Your task to perform on an android device: turn pop-ups on in chrome Image 0: 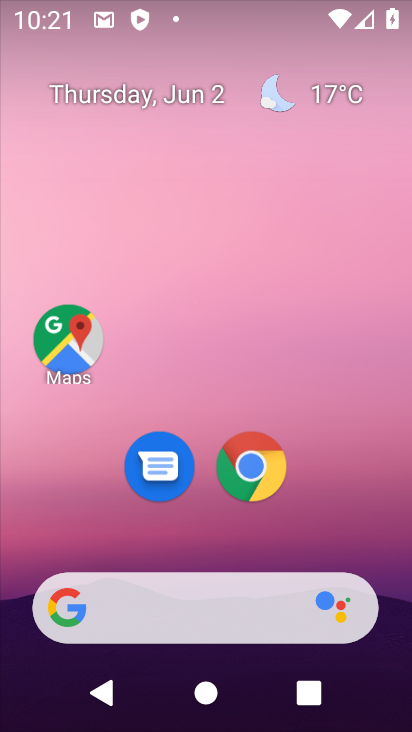
Step 0: click (243, 462)
Your task to perform on an android device: turn pop-ups on in chrome Image 1: 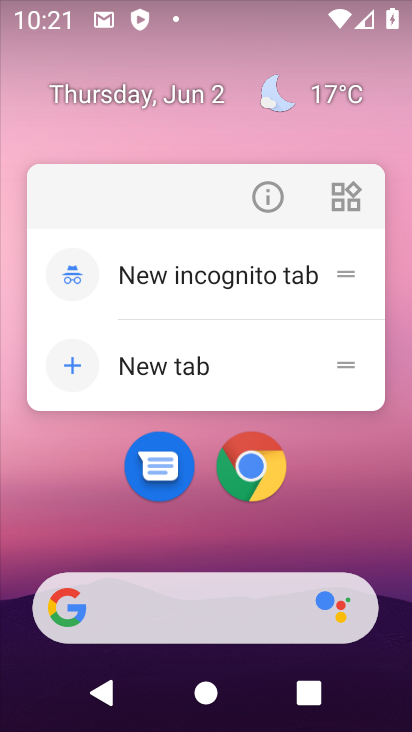
Step 1: click (249, 487)
Your task to perform on an android device: turn pop-ups on in chrome Image 2: 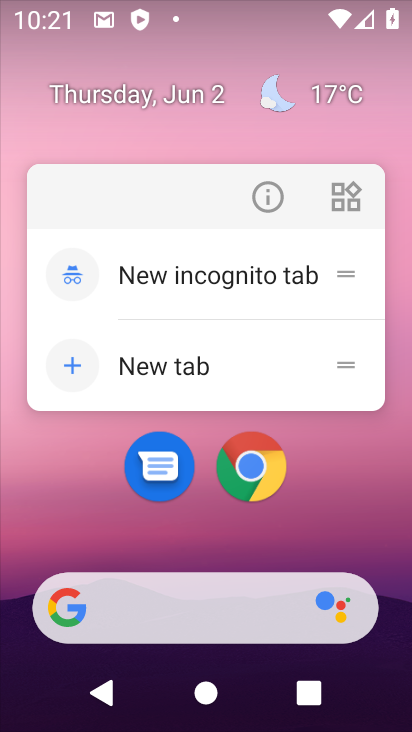
Step 2: click (308, 496)
Your task to perform on an android device: turn pop-ups on in chrome Image 3: 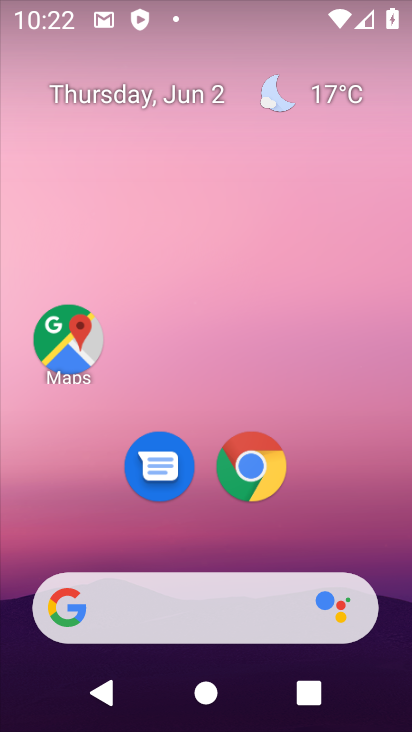
Step 3: drag from (330, 548) to (353, 9)
Your task to perform on an android device: turn pop-ups on in chrome Image 4: 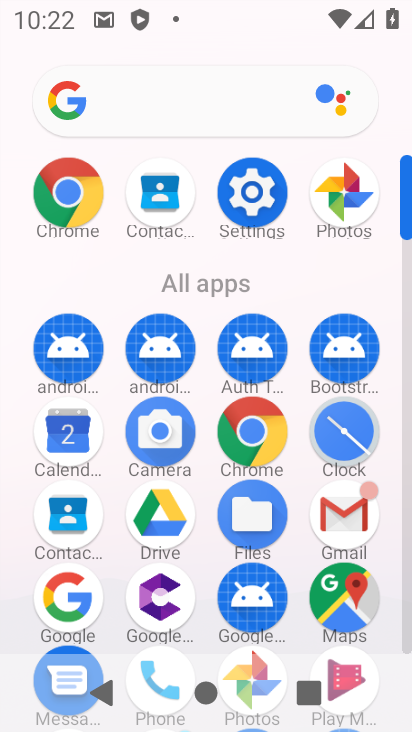
Step 4: click (60, 195)
Your task to perform on an android device: turn pop-ups on in chrome Image 5: 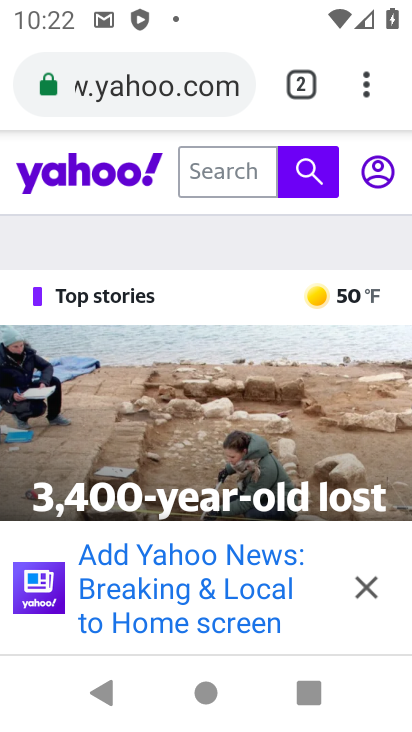
Step 5: drag from (373, 85) to (148, 519)
Your task to perform on an android device: turn pop-ups on in chrome Image 6: 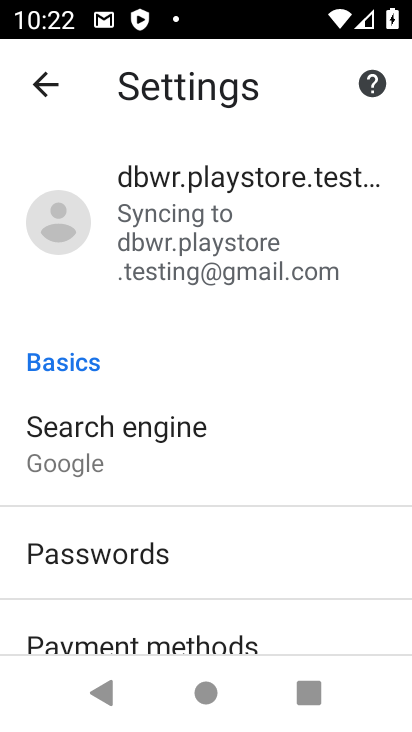
Step 6: drag from (289, 639) to (309, 84)
Your task to perform on an android device: turn pop-ups on in chrome Image 7: 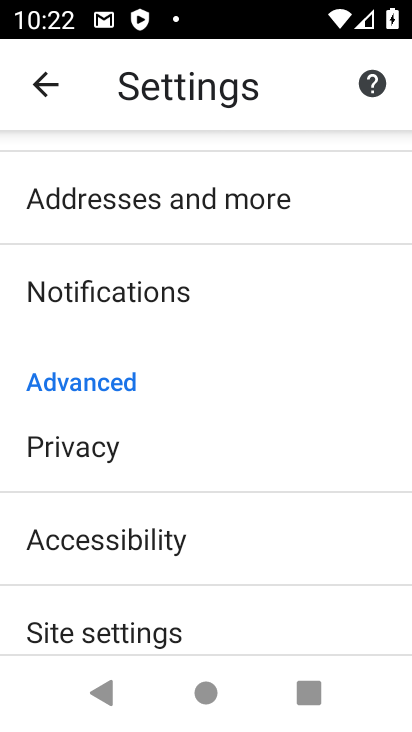
Step 7: click (132, 637)
Your task to perform on an android device: turn pop-ups on in chrome Image 8: 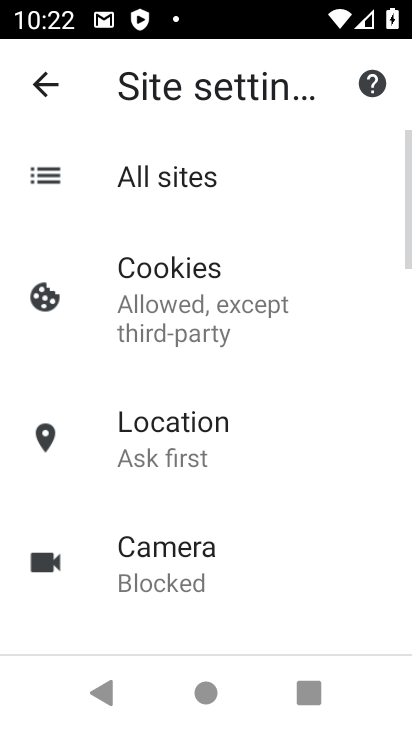
Step 8: drag from (323, 531) to (337, 142)
Your task to perform on an android device: turn pop-ups on in chrome Image 9: 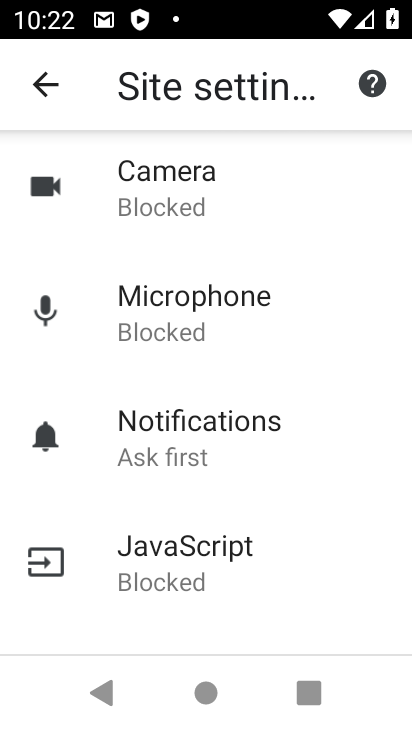
Step 9: drag from (366, 519) to (354, 207)
Your task to perform on an android device: turn pop-ups on in chrome Image 10: 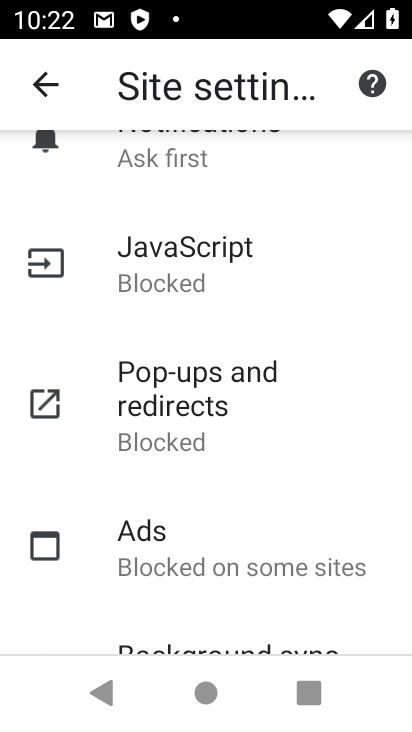
Step 10: click (177, 385)
Your task to perform on an android device: turn pop-ups on in chrome Image 11: 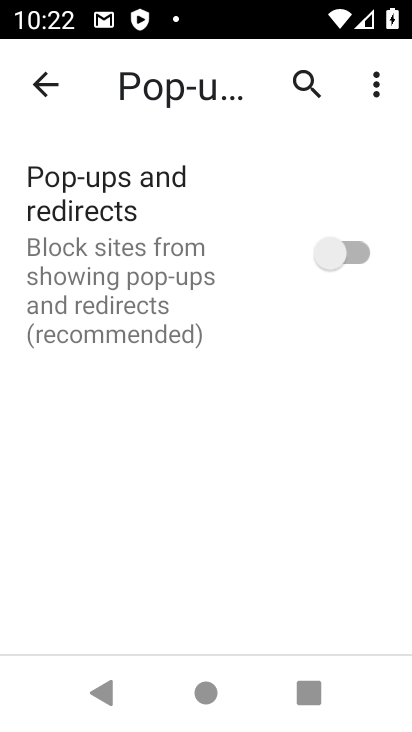
Step 11: click (329, 248)
Your task to perform on an android device: turn pop-ups on in chrome Image 12: 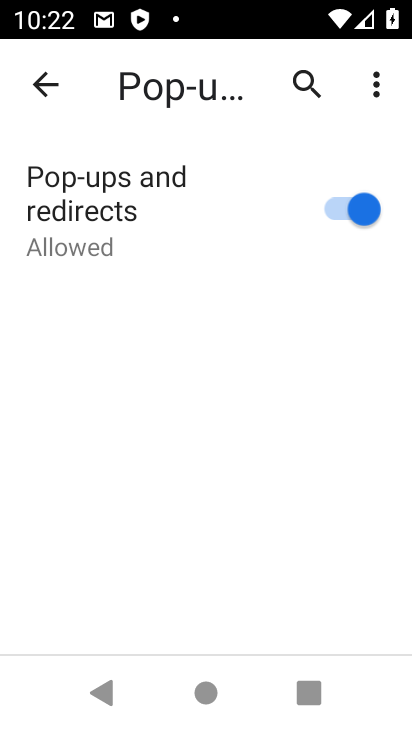
Step 12: task complete